Your task to perform on an android device: Open privacy settings Image 0: 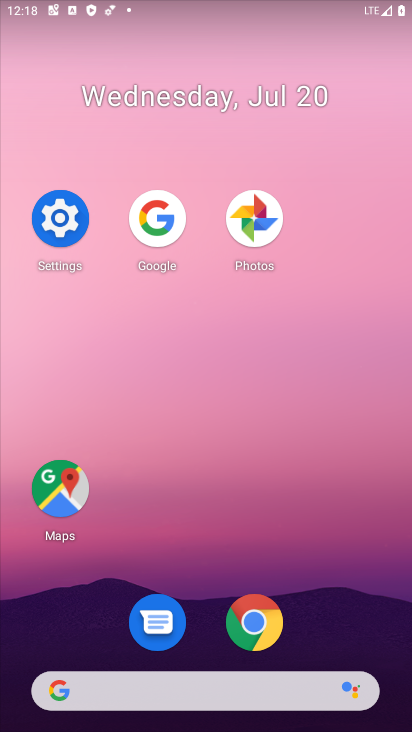
Step 0: click (75, 203)
Your task to perform on an android device: Open privacy settings Image 1: 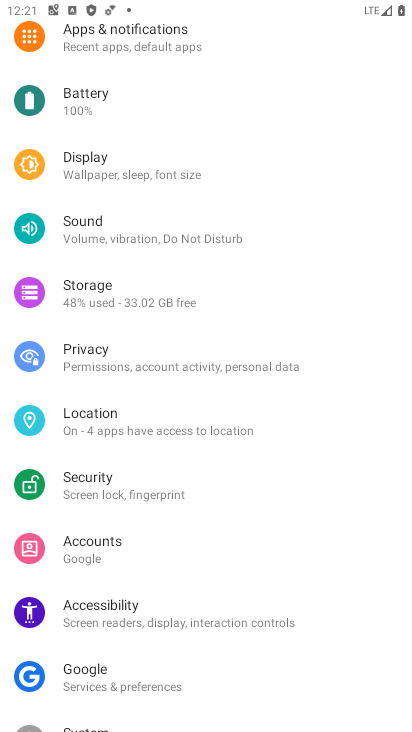
Step 1: click (178, 367)
Your task to perform on an android device: Open privacy settings Image 2: 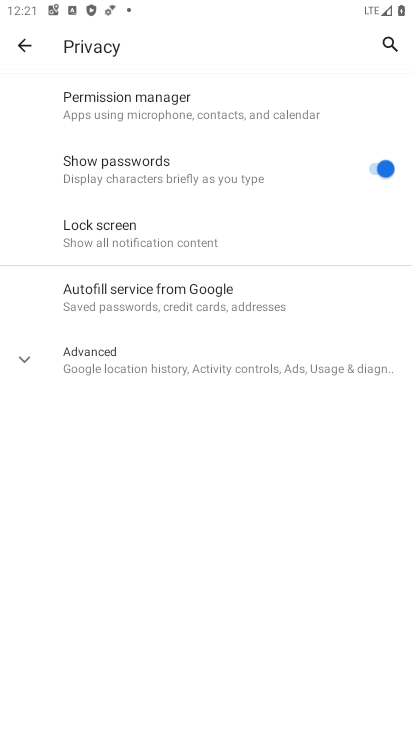
Step 2: task complete